Your task to perform on an android device: Is it going to rain this weekend? Image 0: 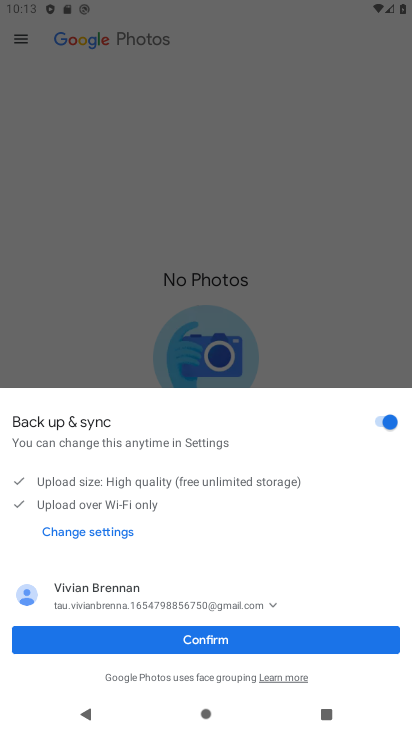
Step 0: press home button
Your task to perform on an android device: Is it going to rain this weekend? Image 1: 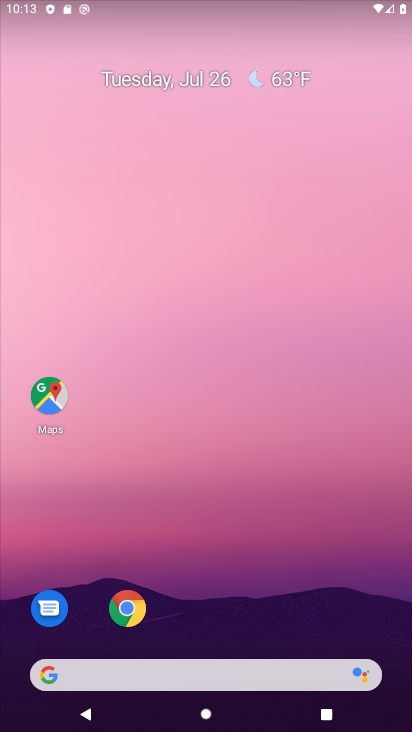
Step 1: click (48, 672)
Your task to perform on an android device: Is it going to rain this weekend? Image 2: 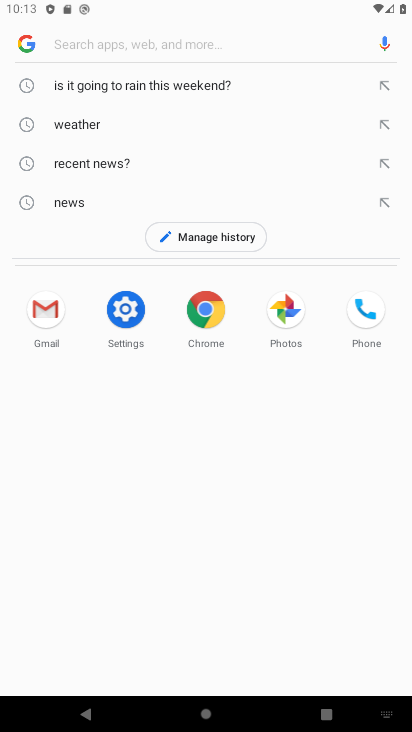
Step 2: click (188, 80)
Your task to perform on an android device: Is it going to rain this weekend? Image 3: 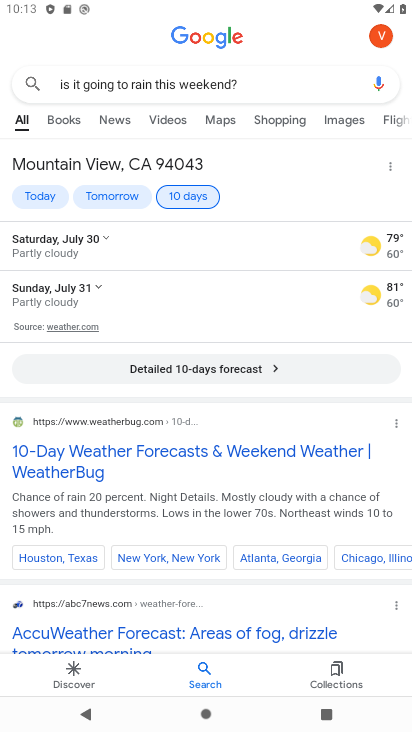
Step 3: task complete